Your task to perform on an android device: Open the Play Movies app and select the watchlist tab. Image 0: 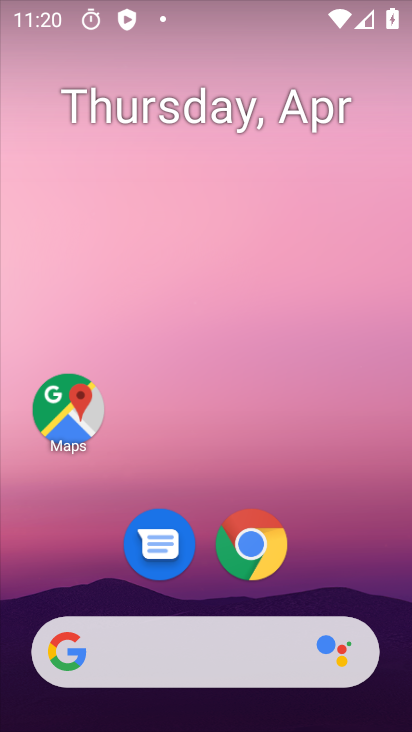
Step 0: drag from (308, 585) to (260, 125)
Your task to perform on an android device: Open the Play Movies app and select the watchlist tab. Image 1: 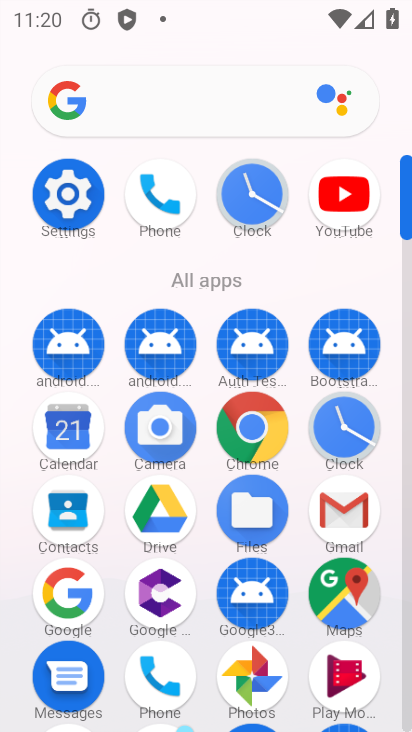
Step 1: drag from (290, 552) to (291, 385)
Your task to perform on an android device: Open the Play Movies app and select the watchlist tab. Image 2: 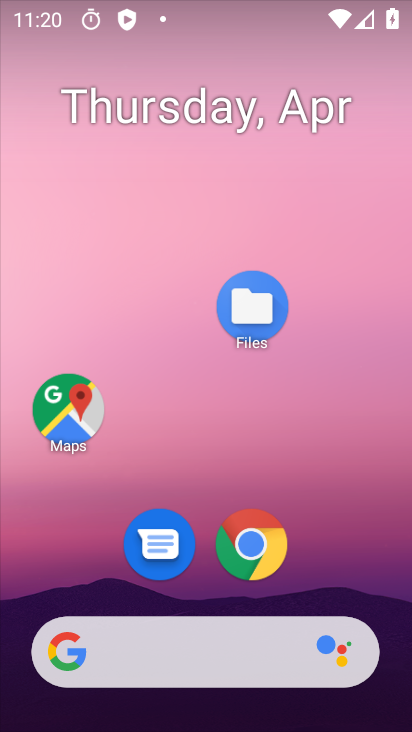
Step 2: drag from (193, 507) to (193, 155)
Your task to perform on an android device: Open the Play Movies app and select the watchlist tab. Image 3: 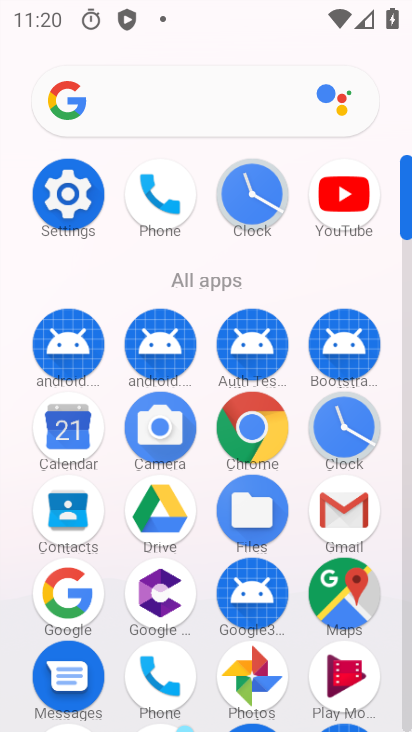
Step 3: click (348, 685)
Your task to perform on an android device: Open the Play Movies app and select the watchlist tab. Image 4: 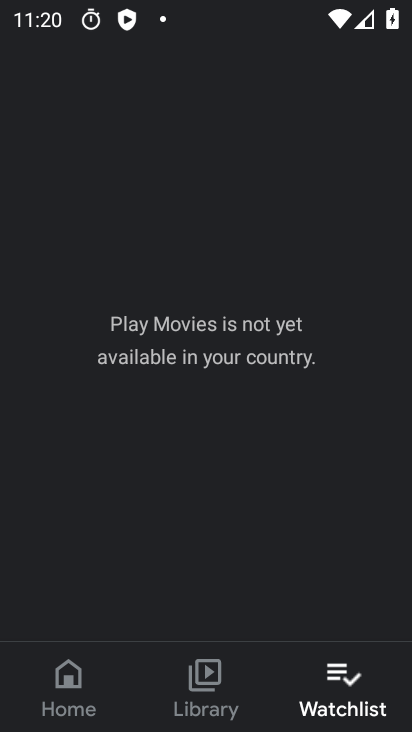
Step 4: task complete